Your task to perform on an android device: turn pop-ups on in chrome Image 0: 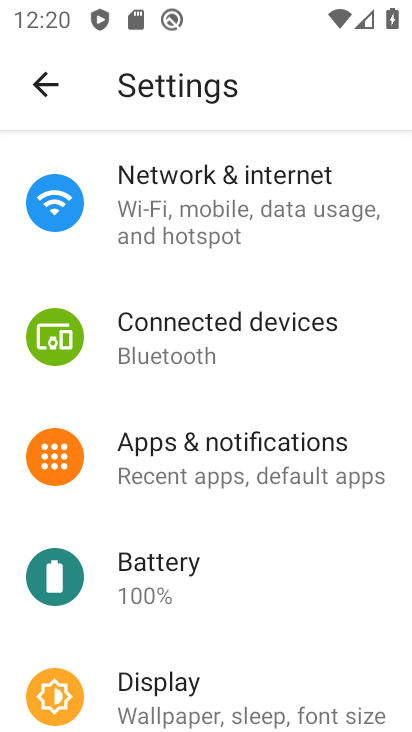
Step 0: drag from (155, 600) to (255, 139)
Your task to perform on an android device: turn pop-ups on in chrome Image 1: 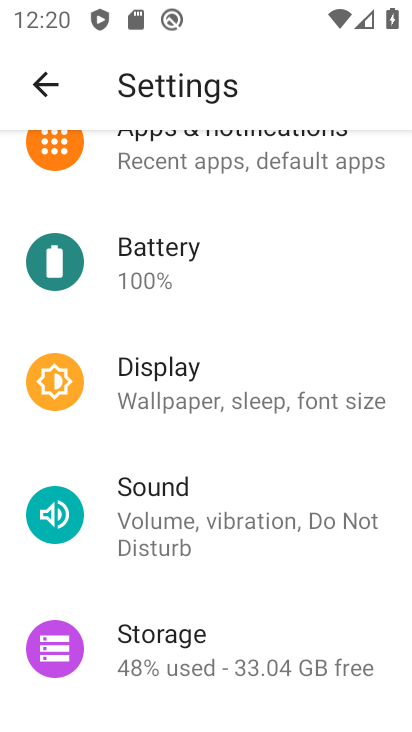
Step 1: press home button
Your task to perform on an android device: turn pop-ups on in chrome Image 2: 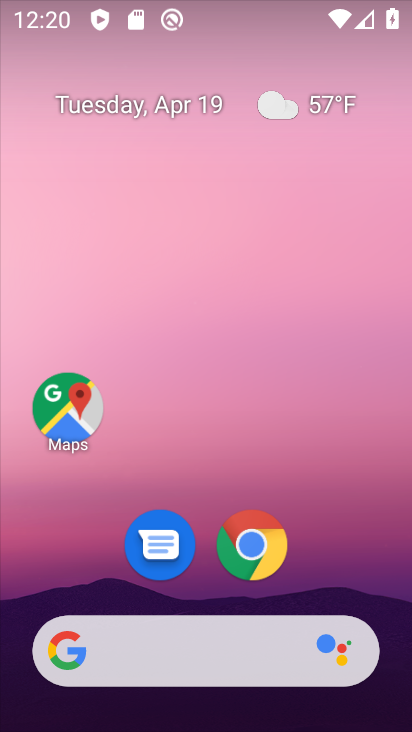
Step 2: click (249, 554)
Your task to perform on an android device: turn pop-ups on in chrome Image 3: 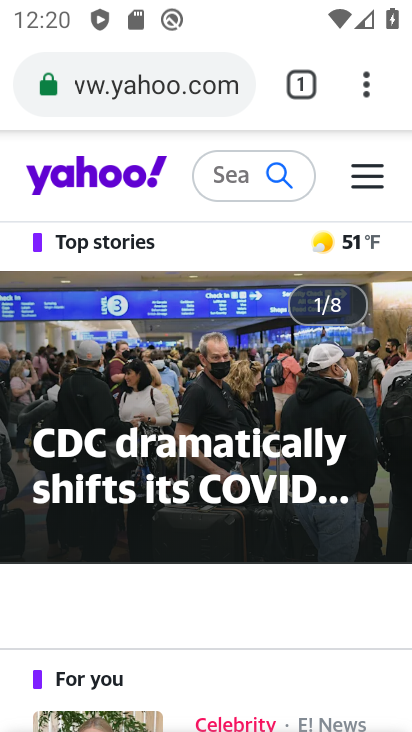
Step 3: click (375, 92)
Your task to perform on an android device: turn pop-ups on in chrome Image 4: 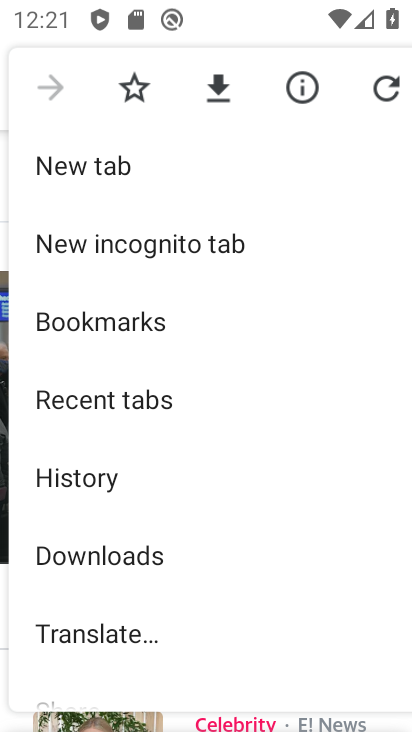
Step 4: drag from (155, 603) to (224, 92)
Your task to perform on an android device: turn pop-ups on in chrome Image 5: 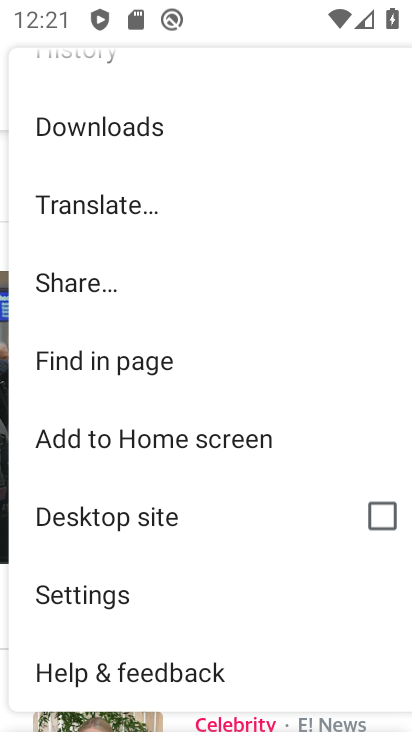
Step 5: click (99, 588)
Your task to perform on an android device: turn pop-ups on in chrome Image 6: 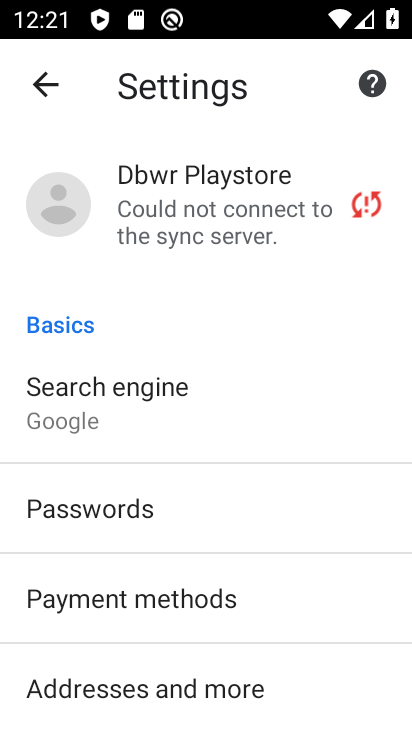
Step 6: drag from (130, 586) to (257, 102)
Your task to perform on an android device: turn pop-ups on in chrome Image 7: 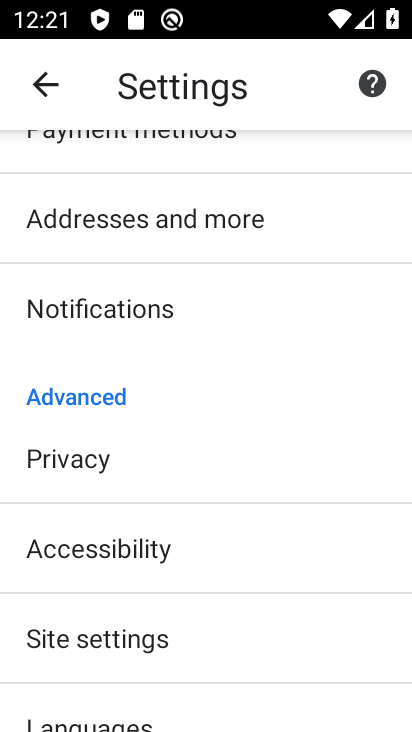
Step 7: click (132, 641)
Your task to perform on an android device: turn pop-ups on in chrome Image 8: 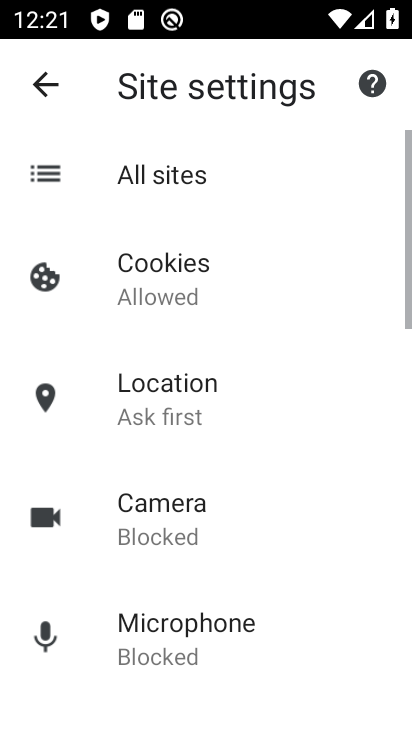
Step 8: drag from (168, 615) to (284, 65)
Your task to perform on an android device: turn pop-ups on in chrome Image 9: 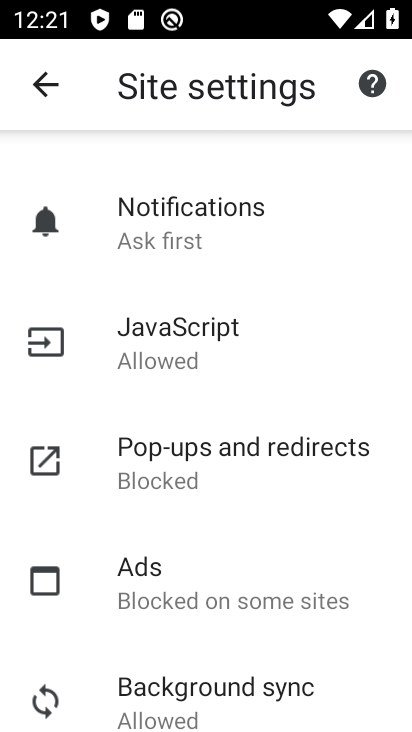
Step 9: click (186, 466)
Your task to perform on an android device: turn pop-ups on in chrome Image 10: 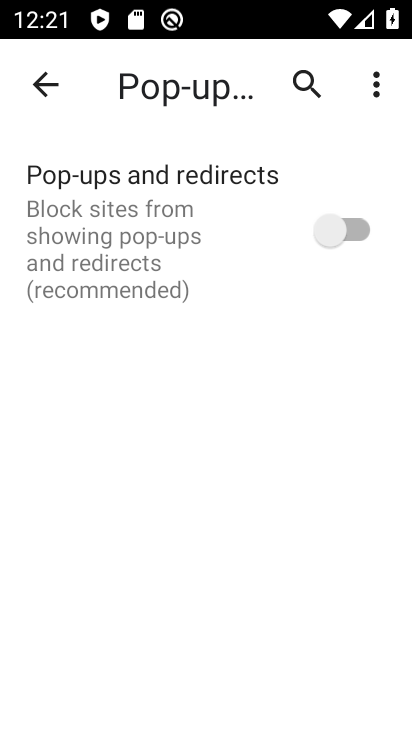
Step 10: click (338, 234)
Your task to perform on an android device: turn pop-ups on in chrome Image 11: 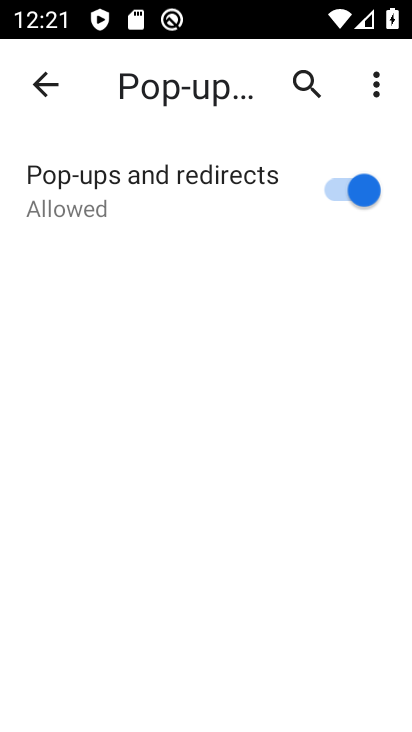
Step 11: task complete